Your task to perform on an android device: Open battery settings Image 0: 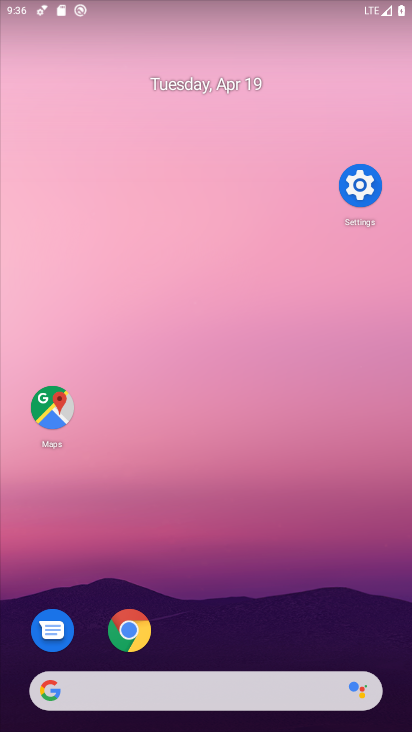
Step 0: drag from (277, 594) to (296, 89)
Your task to perform on an android device: Open battery settings Image 1: 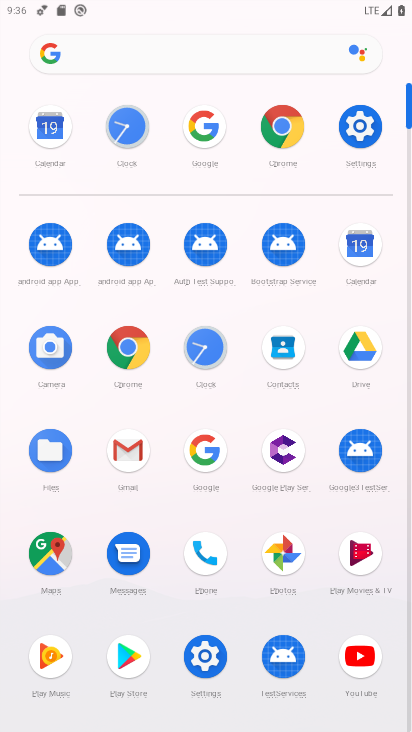
Step 1: click (362, 137)
Your task to perform on an android device: Open battery settings Image 2: 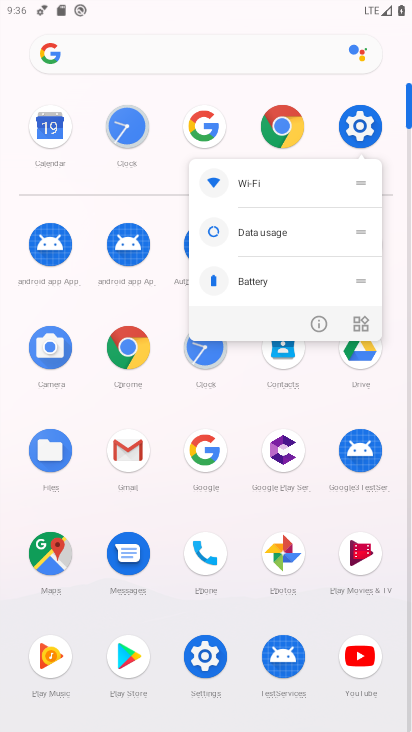
Step 2: click (360, 124)
Your task to perform on an android device: Open battery settings Image 3: 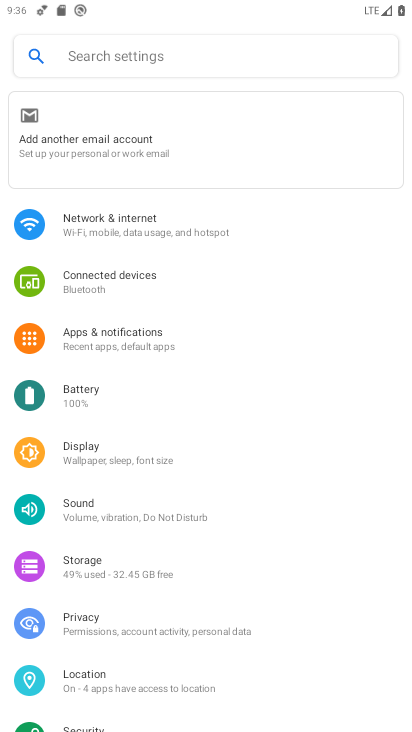
Step 3: click (126, 394)
Your task to perform on an android device: Open battery settings Image 4: 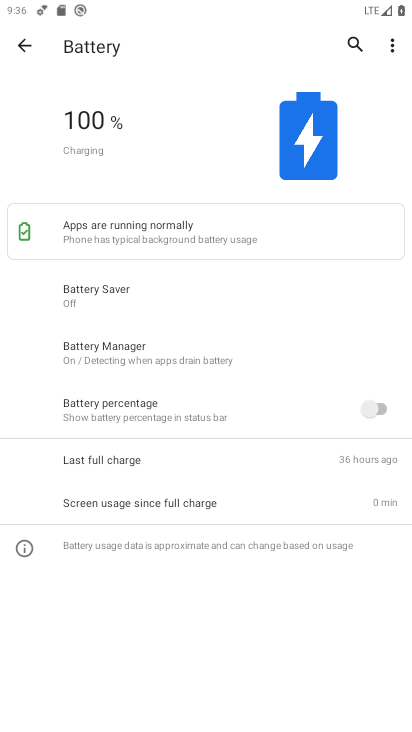
Step 4: task complete